Your task to perform on an android device: Go to Yahoo.com Image 0: 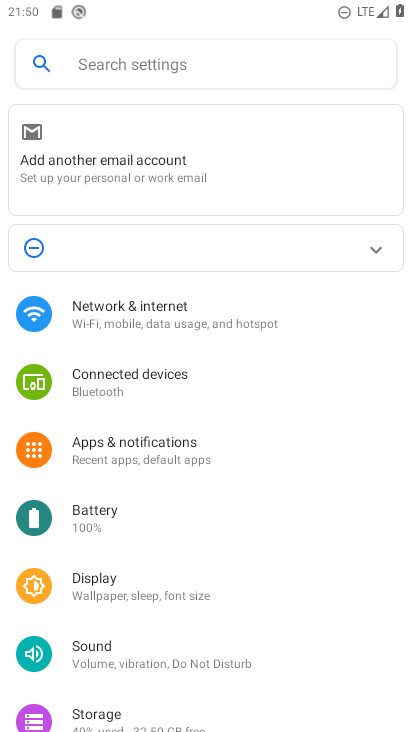
Step 0: press home button
Your task to perform on an android device: Go to Yahoo.com Image 1: 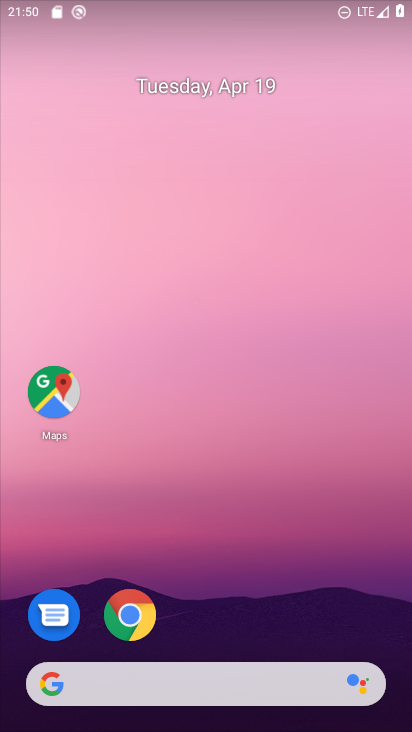
Step 1: click (125, 627)
Your task to perform on an android device: Go to Yahoo.com Image 2: 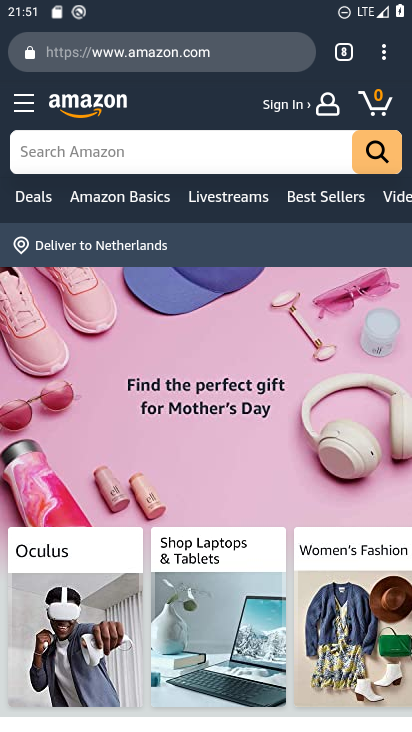
Step 2: click (342, 53)
Your task to perform on an android device: Go to Yahoo.com Image 3: 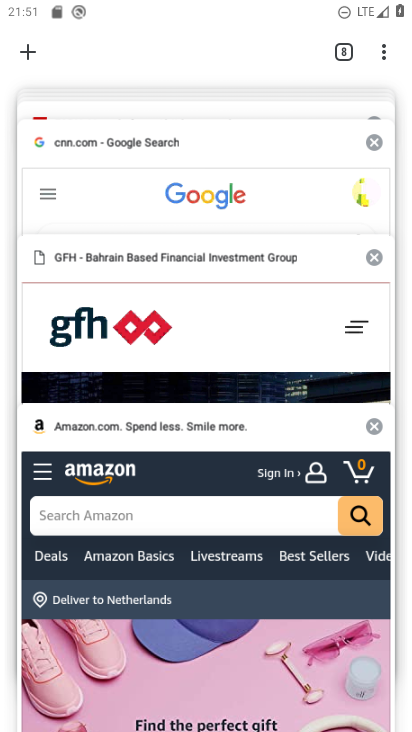
Step 3: click (29, 46)
Your task to perform on an android device: Go to Yahoo.com Image 4: 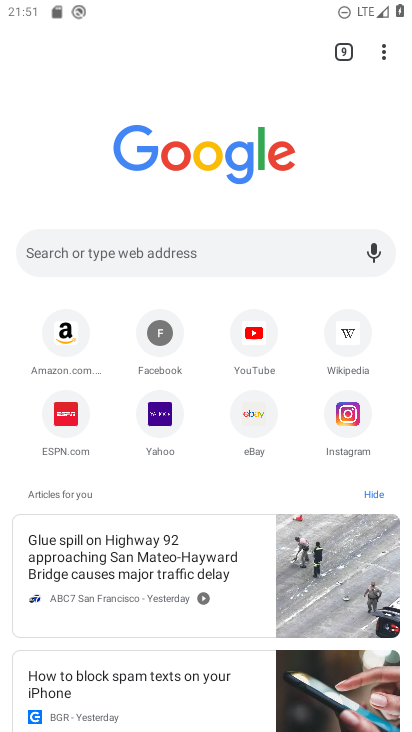
Step 4: click (162, 417)
Your task to perform on an android device: Go to Yahoo.com Image 5: 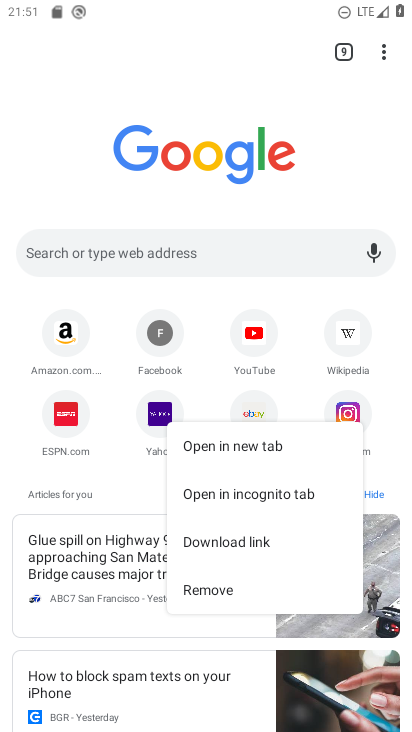
Step 5: click (158, 420)
Your task to perform on an android device: Go to Yahoo.com Image 6: 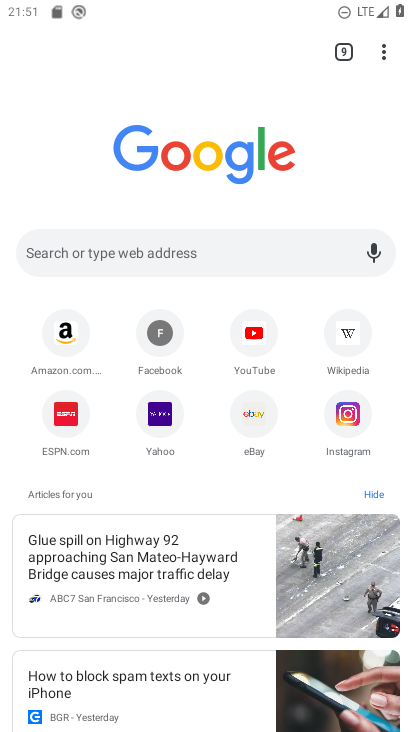
Step 6: click (158, 420)
Your task to perform on an android device: Go to Yahoo.com Image 7: 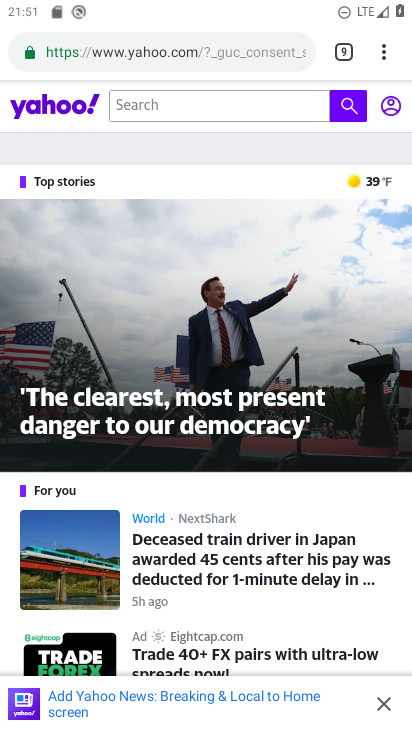
Step 7: task complete